Your task to perform on an android device: Open Maps and search for coffee Image 0: 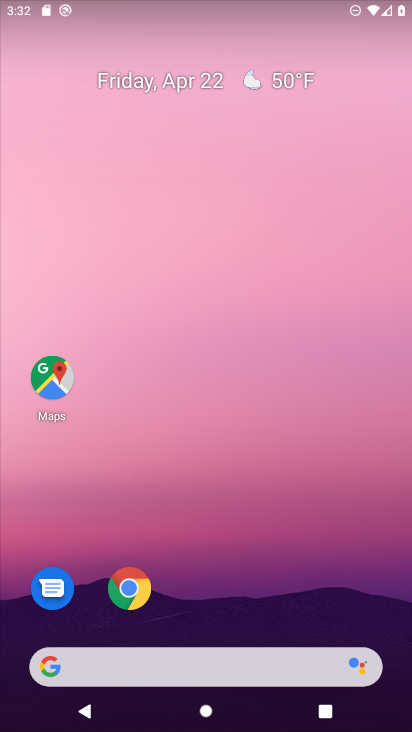
Step 0: click (53, 367)
Your task to perform on an android device: Open Maps and search for coffee Image 1: 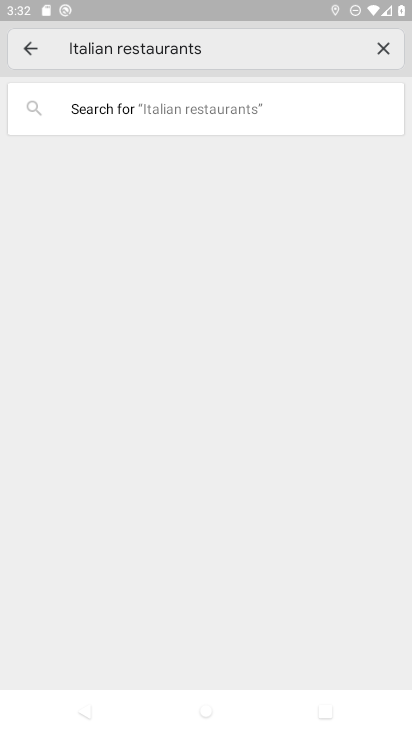
Step 1: click (379, 54)
Your task to perform on an android device: Open Maps and search for coffee Image 2: 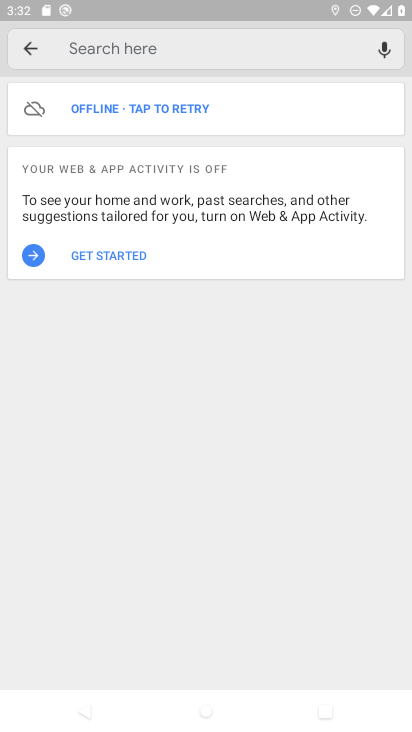
Step 2: click (217, 50)
Your task to perform on an android device: Open Maps and search for coffee Image 3: 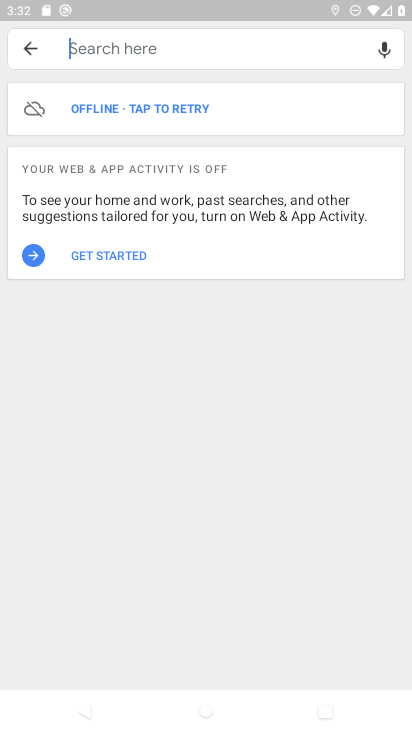
Step 3: click (217, 50)
Your task to perform on an android device: Open Maps and search for coffee Image 4: 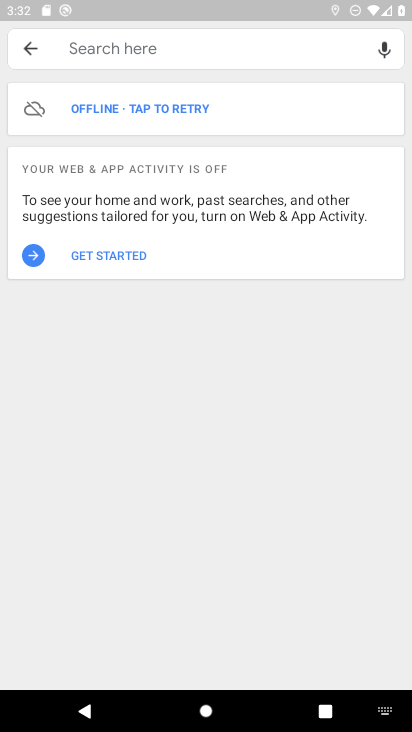
Step 4: type "coffee"
Your task to perform on an android device: Open Maps and search for coffee Image 5: 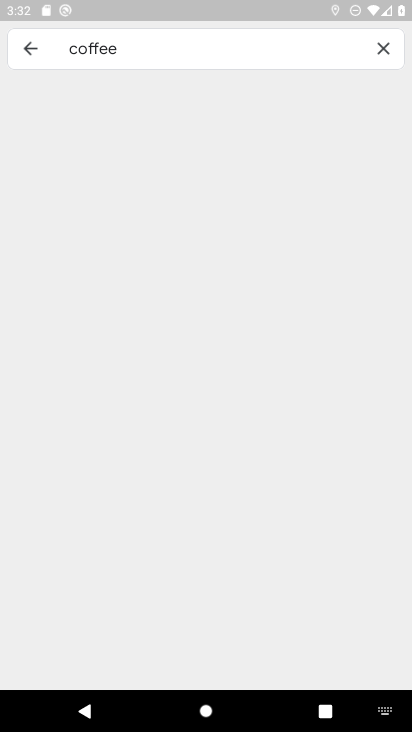
Step 5: click (134, 50)
Your task to perform on an android device: Open Maps and search for coffee Image 6: 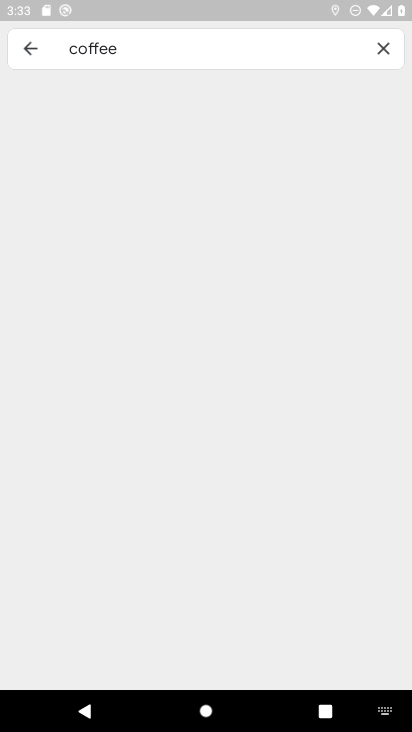
Step 6: task complete